Your task to perform on an android device: turn on bluetooth scan Image 0: 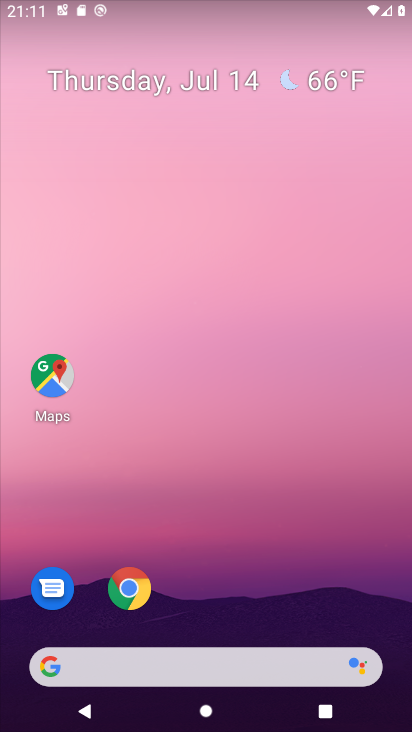
Step 0: drag from (374, 588) to (378, 94)
Your task to perform on an android device: turn on bluetooth scan Image 1: 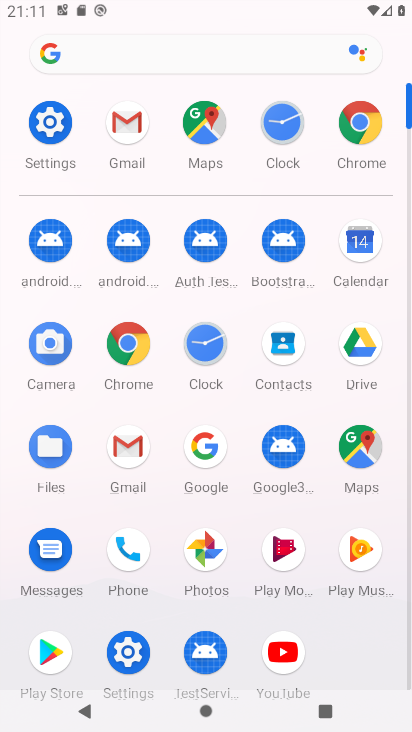
Step 1: click (136, 644)
Your task to perform on an android device: turn on bluetooth scan Image 2: 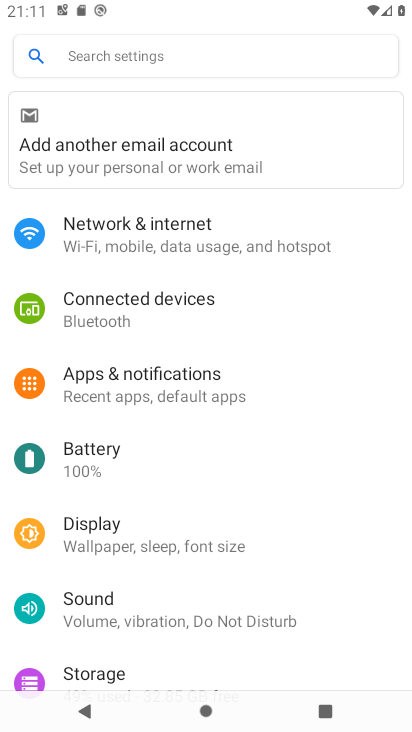
Step 2: drag from (344, 571) to (350, 494)
Your task to perform on an android device: turn on bluetooth scan Image 3: 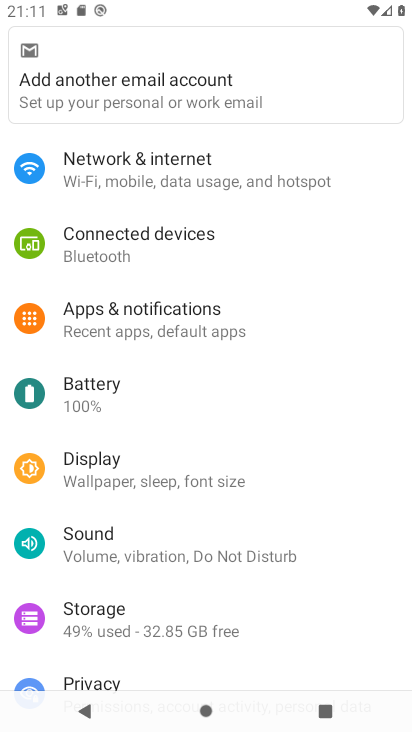
Step 3: drag from (361, 622) to (363, 523)
Your task to perform on an android device: turn on bluetooth scan Image 4: 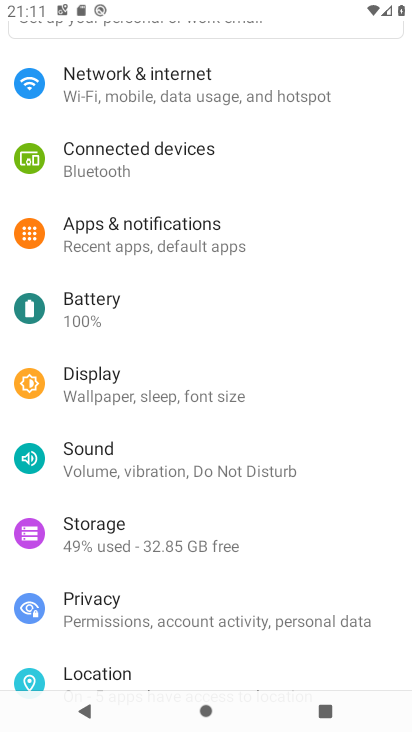
Step 4: drag from (358, 643) to (364, 547)
Your task to perform on an android device: turn on bluetooth scan Image 5: 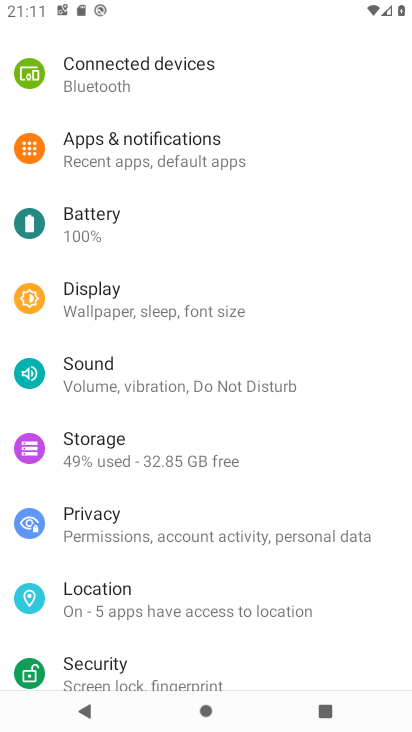
Step 5: drag from (362, 626) to (363, 506)
Your task to perform on an android device: turn on bluetooth scan Image 6: 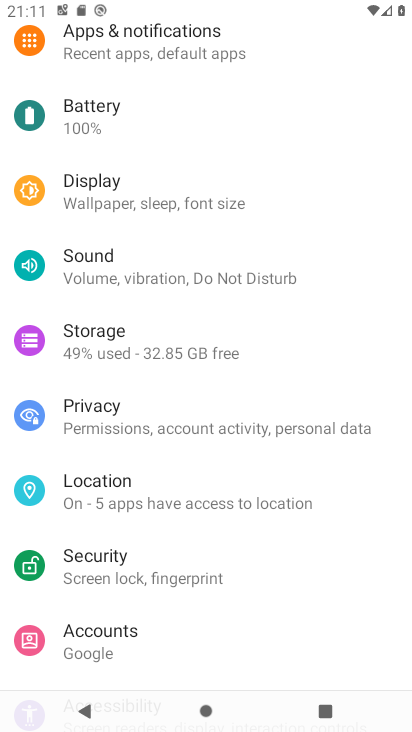
Step 6: drag from (330, 567) to (345, 458)
Your task to perform on an android device: turn on bluetooth scan Image 7: 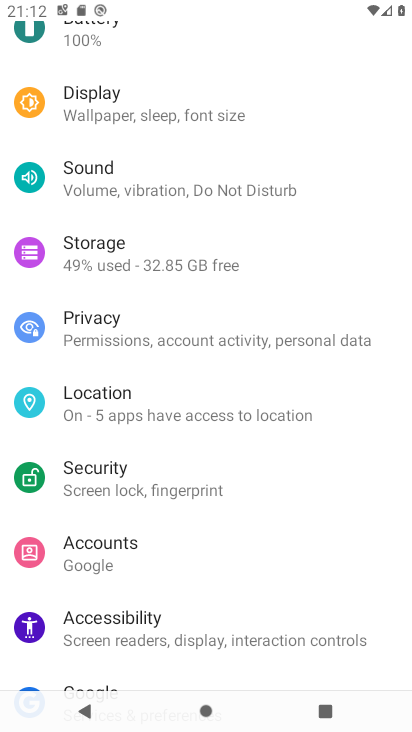
Step 7: drag from (352, 555) to (364, 404)
Your task to perform on an android device: turn on bluetooth scan Image 8: 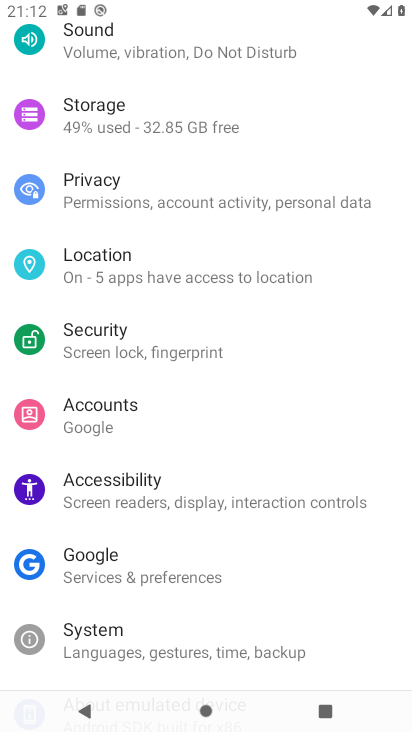
Step 8: drag from (364, 313) to (354, 409)
Your task to perform on an android device: turn on bluetooth scan Image 9: 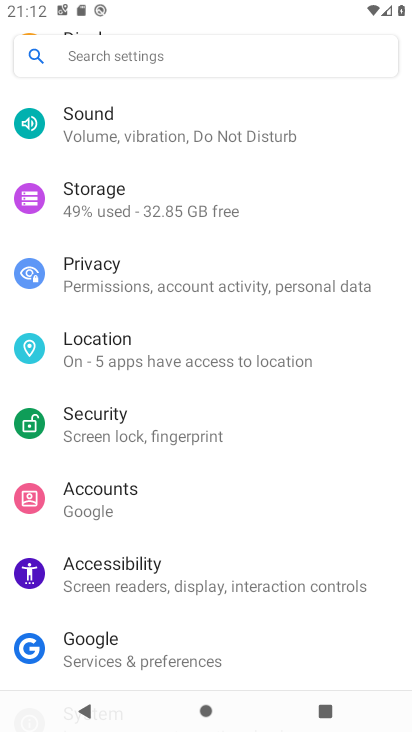
Step 9: drag from (353, 321) to (352, 433)
Your task to perform on an android device: turn on bluetooth scan Image 10: 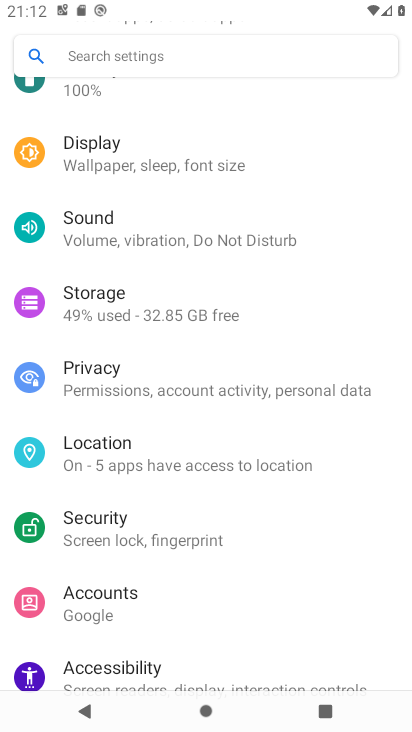
Step 10: click (327, 456)
Your task to perform on an android device: turn on bluetooth scan Image 11: 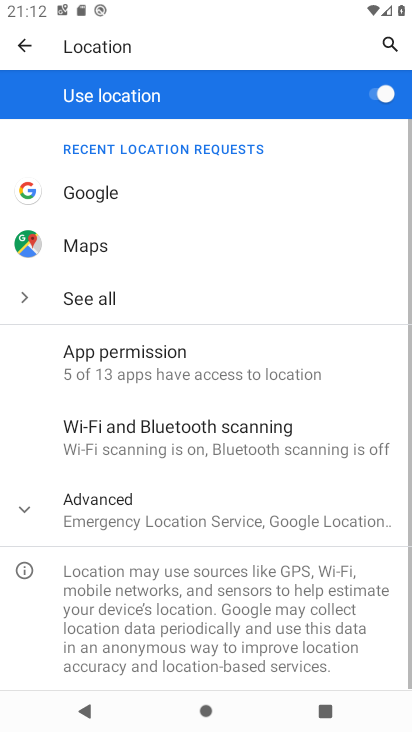
Step 11: click (330, 440)
Your task to perform on an android device: turn on bluetooth scan Image 12: 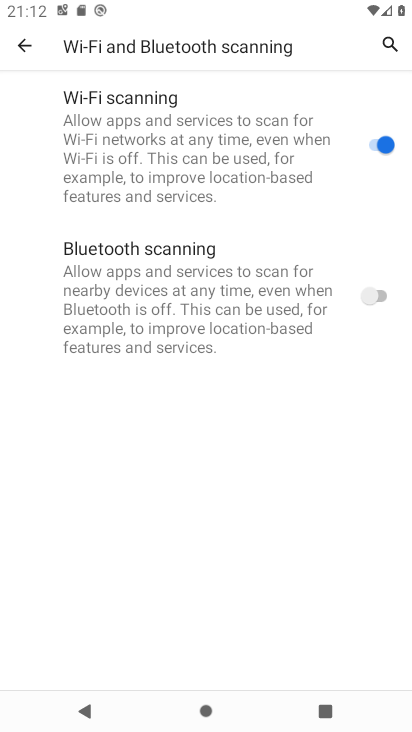
Step 12: click (370, 294)
Your task to perform on an android device: turn on bluetooth scan Image 13: 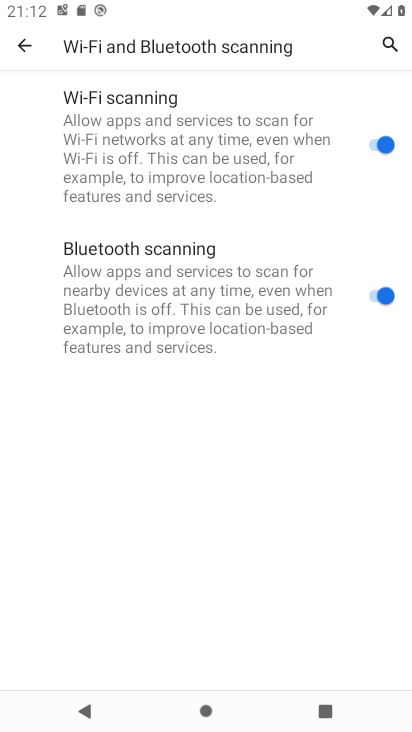
Step 13: task complete